Your task to perform on an android device: Do I have any events tomorrow? Image 0: 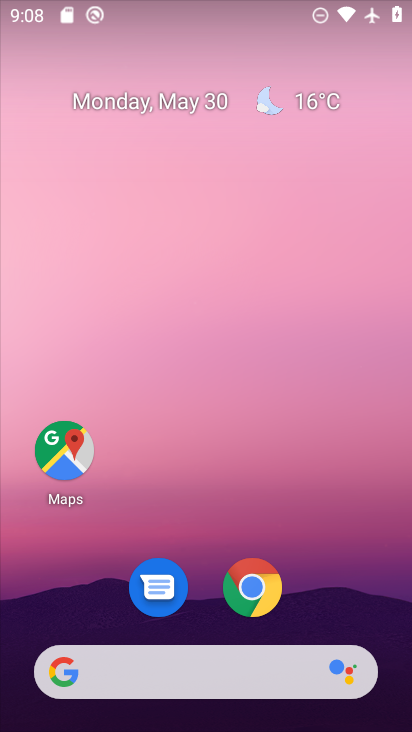
Step 0: drag from (109, 654) to (173, 1)
Your task to perform on an android device: Do I have any events tomorrow? Image 1: 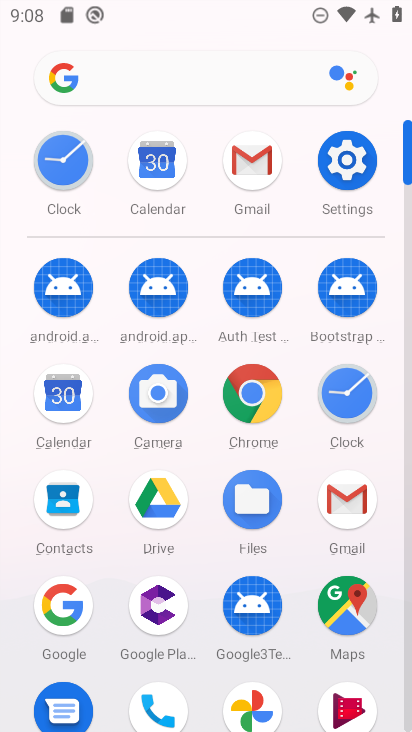
Step 1: click (167, 170)
Your task to perform on an android device: Do I have any events tomorrow? Image 2: 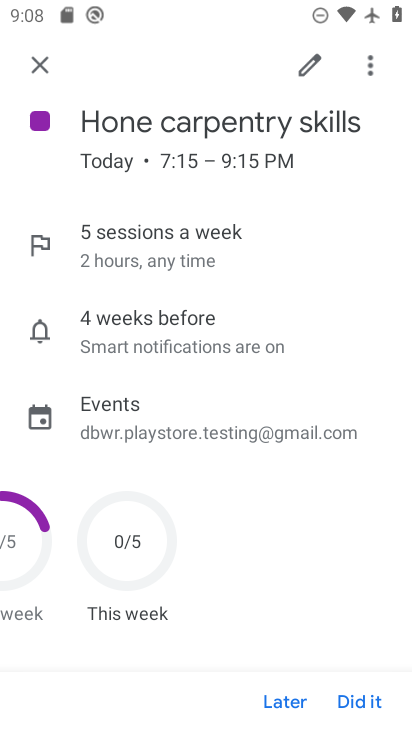
Step 2: click (34, 60)
Your task to perform on an android device: Do I have any events tomorrow? Image 3: 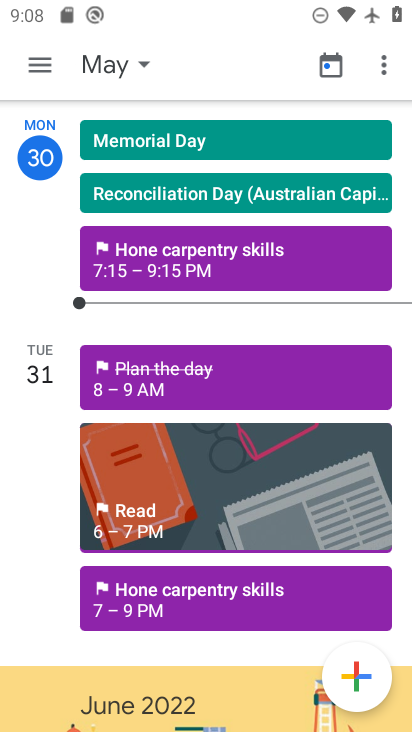
Step 3: click (107, 61)
Your task to perform on an android device: Do I have any events tomorrow? Image 4: 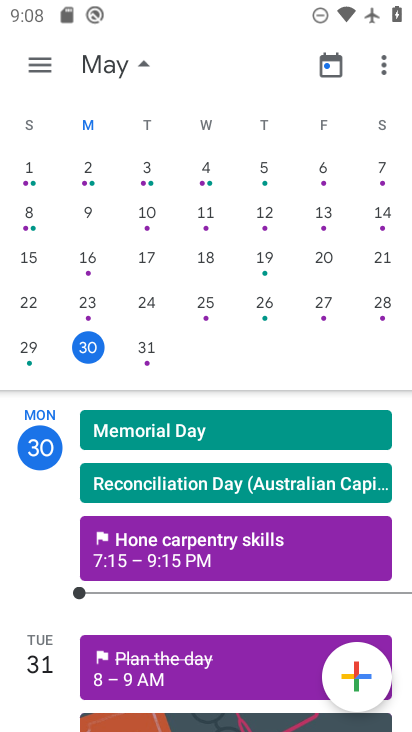
Step 4: click (146, 352)
Your task to perform on an android device: Do I have any events tomorrow? Image 5: 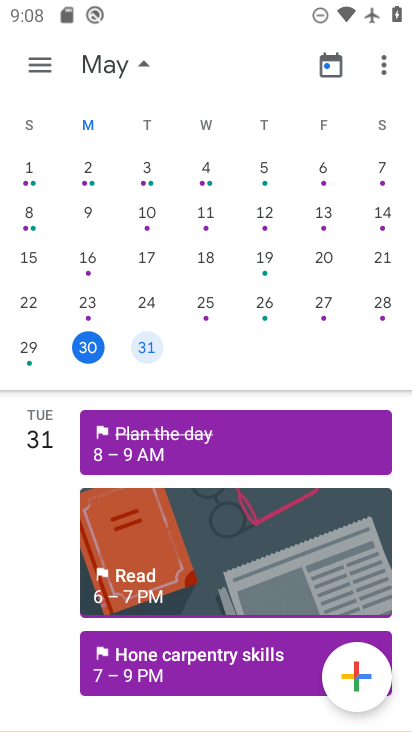
Step 5: click (39, 58)
Your task to perform on an android device: Do I have any events tomorrow? Image 6: 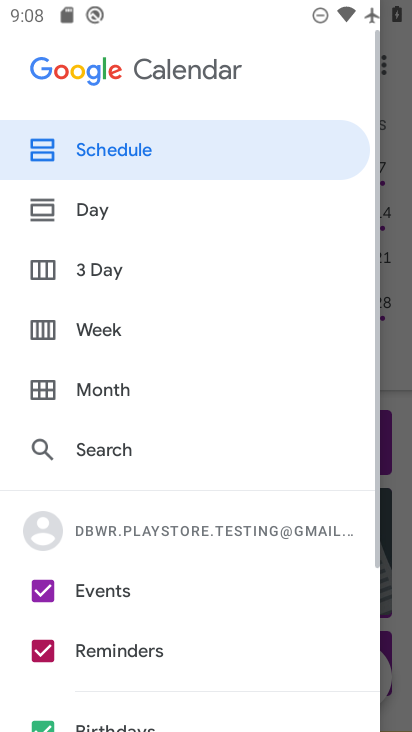
Step 6: click (106, 151)
Your task to perform on an android device: Do I have any events tomorrow? Image 7: 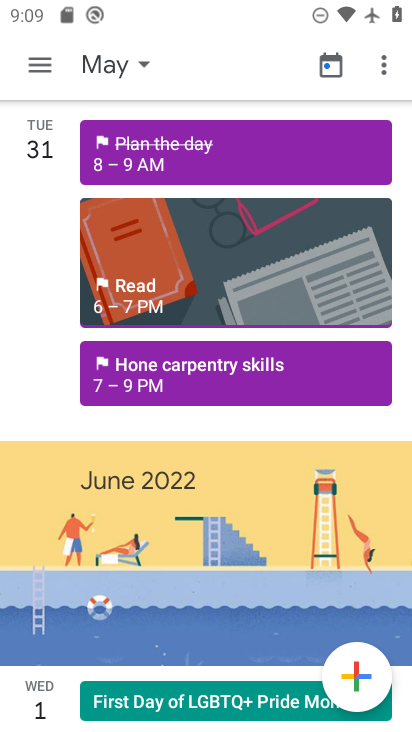
Step 7: click (173, 369)
Your task to perform on an android device: Do I have any events tomorrow? Image 8: 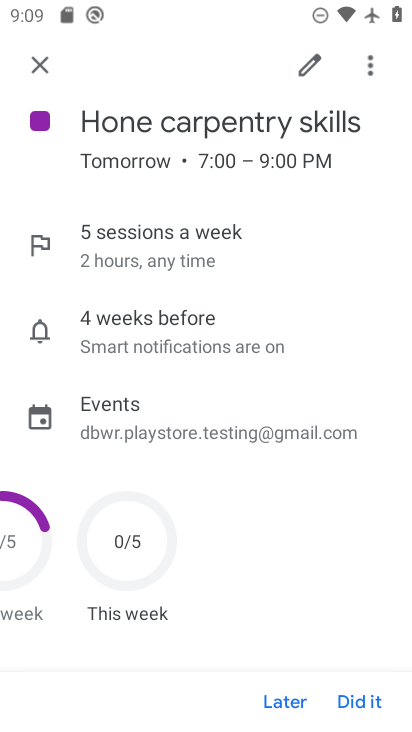
Step 8: task complete